Your task to perform on an android device: turn notification dots on Image 0: 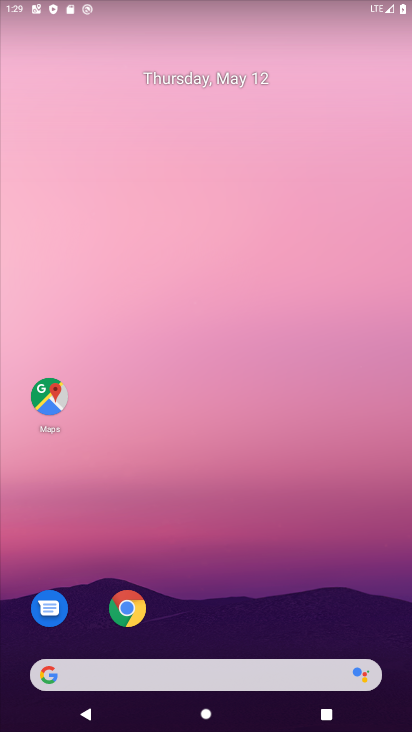
Step 0: drag from (318, 615) to (407, 30)
Your task to perform on an android device: turn notification dots on Image 1: 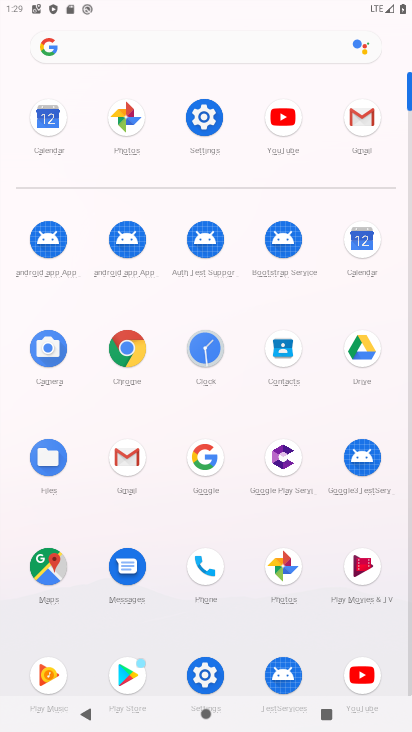
Step 1: click (208, 126)
Your task to perform on an android device: turn notification dots on Image 2: 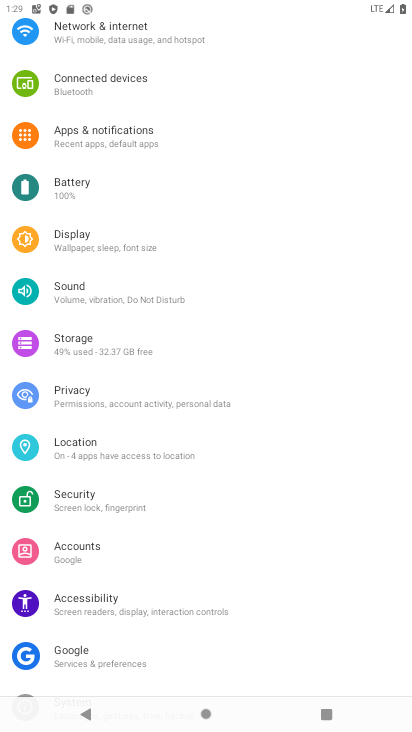
Step 2: click (117, 137)
Your task to perform on an android device: turn notification dots on Image 3: 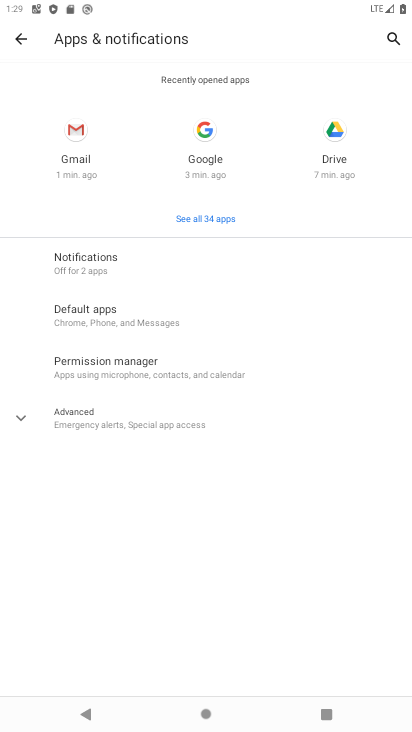
Step 3: click (86, 255)
Your task to perform on an android device: turn notification dots on Image 4: 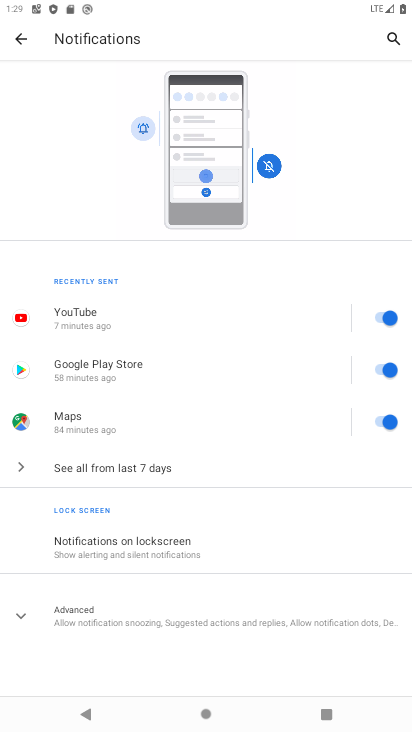
Step 4: click (20, 619)
Your task to perform on an android device: turn notification dots on Image 5: 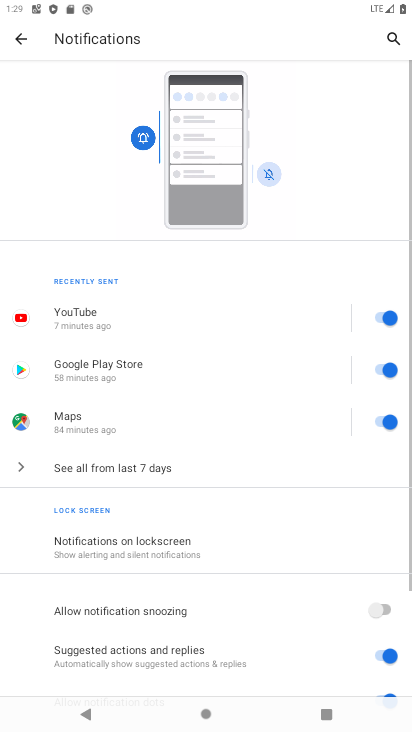
Step 5: task complete